Your task to perform on an android device: find snoozed emails in the gmail app Image 0: 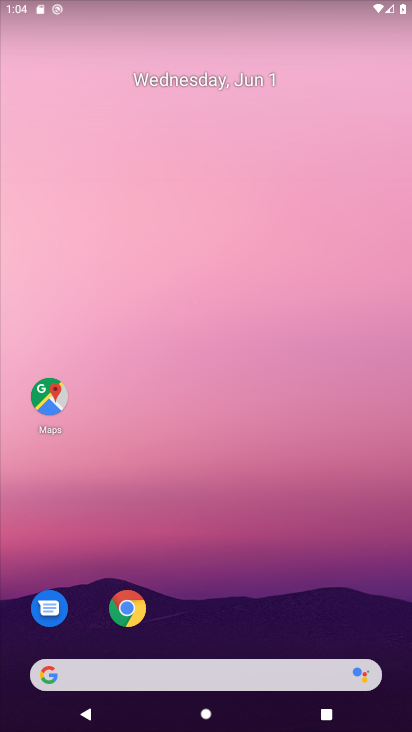
Step 0: drag from (212, 308) to (225, 87)
Your task to perform on an android device: find snoozed emails in the gmail app Image 1: 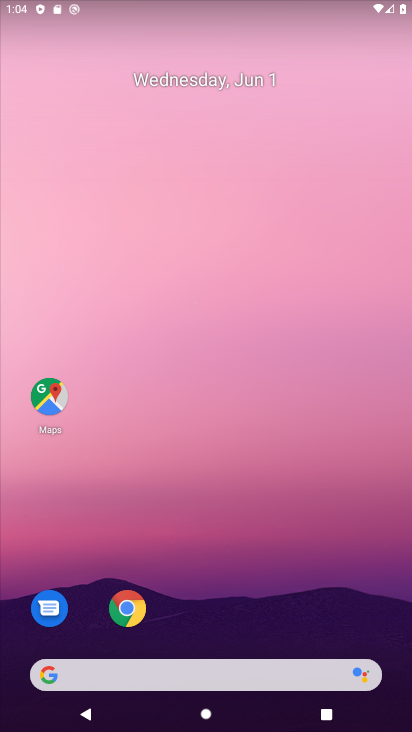
Step 1: drag from (228, 628) to (191, 87)
Your task to perform on an android device: find snoozed emails in the gmail app Image 2: 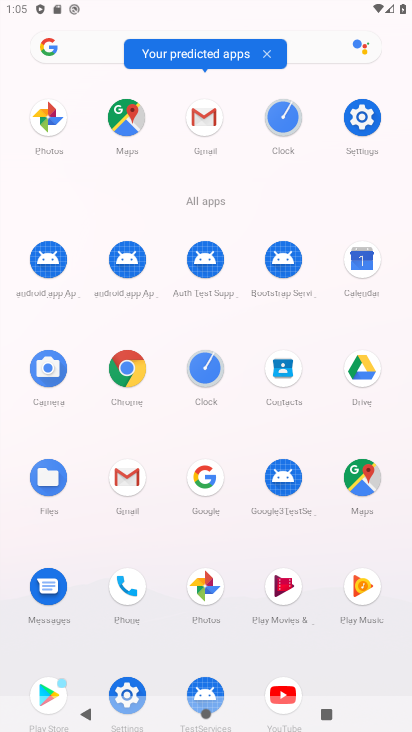
Step 2: click (129, 500)
Your task to perform on an android device: find snoozed emails in the gmail app Image 3: 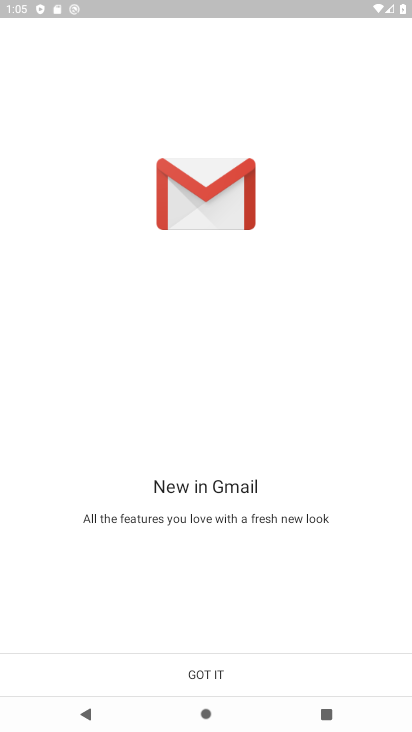
Step 3: click (218, 658)
Your task to perform on an android device: find snoozed emails in the gmail app Image 4: 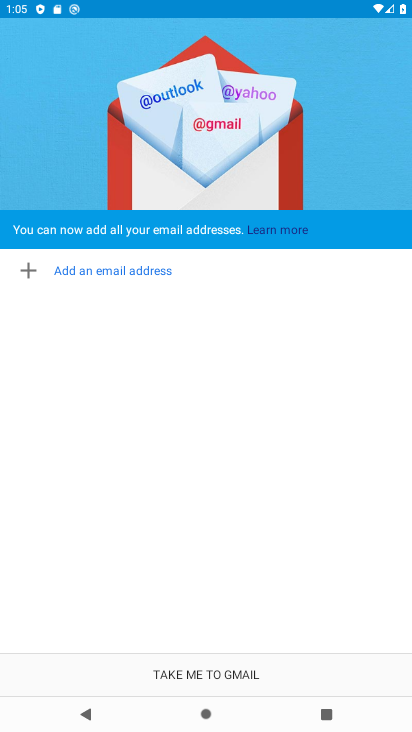
Step 4: click (211, 677)
Your task to perform on an android device: find snoozed emails in the gmail app Image 5: 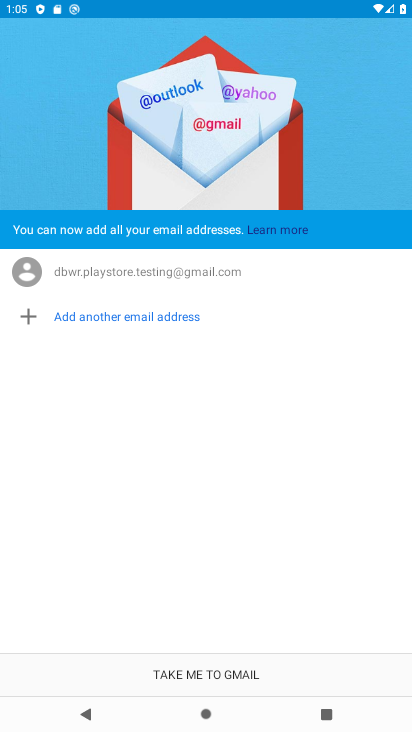
Step 5: click (211, 677)
Your task to perform on an android device: find snoozed emails in the gmail app Image 6: 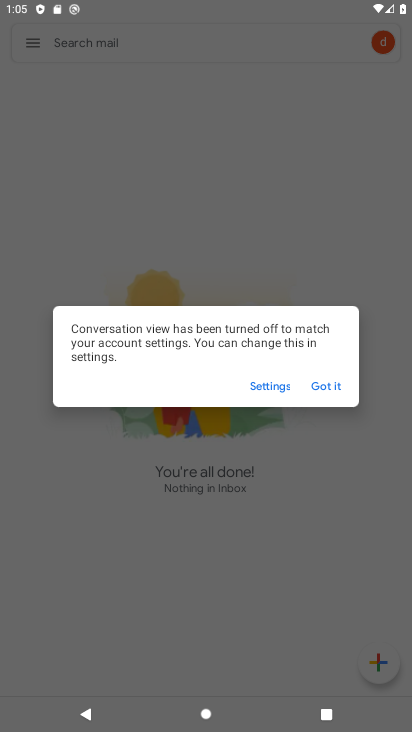
Step 6: click (330, 385)
Your task to perform on an android device: find snoozed emails in the gmail app Image 7: 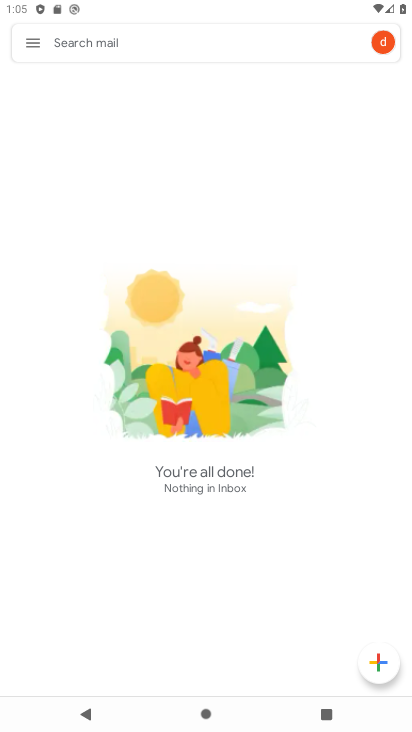
Step 7: press home button
Your task to perform on an android device: find snoozed emails in the gmail app Image 8: 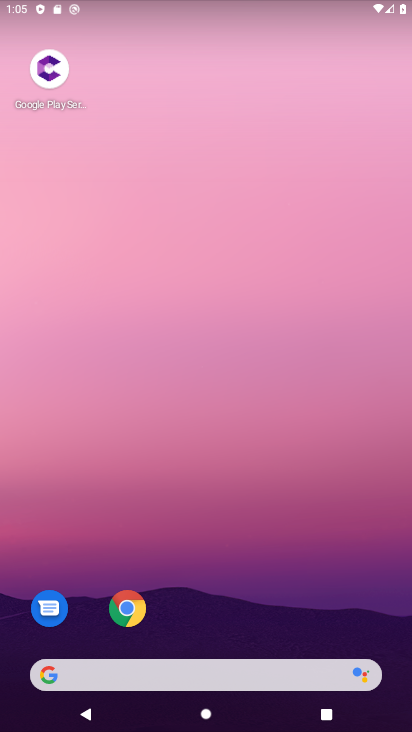
Step 8: drag from (210, 614) to (201, 244)
Your task to perform on an android device: find snoozed emails in the gmail app Image 9: 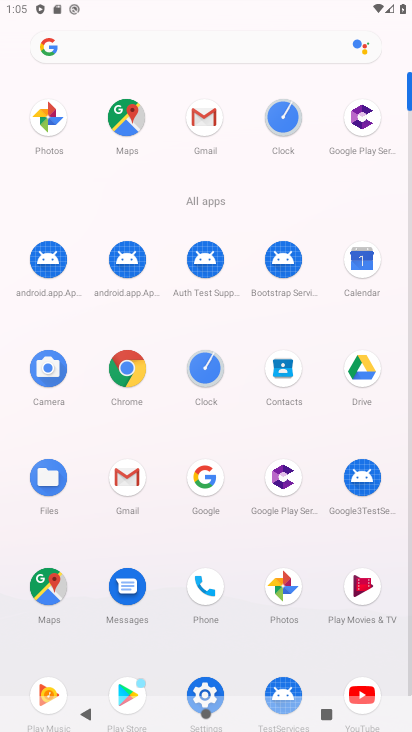
Step 9: click (206, 127)
Your task to perform on an android device: find snoozed emails in the gmail app Image 10: 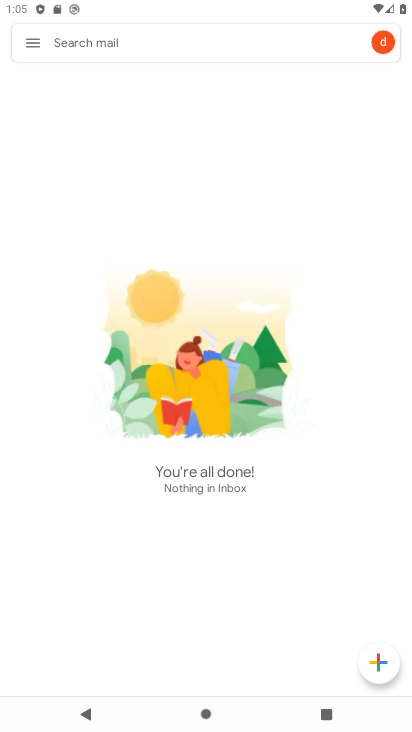
Step 10: click (37, 45)
Your task to perform on an android device: find snoozed emails in the gmail app Image 11: 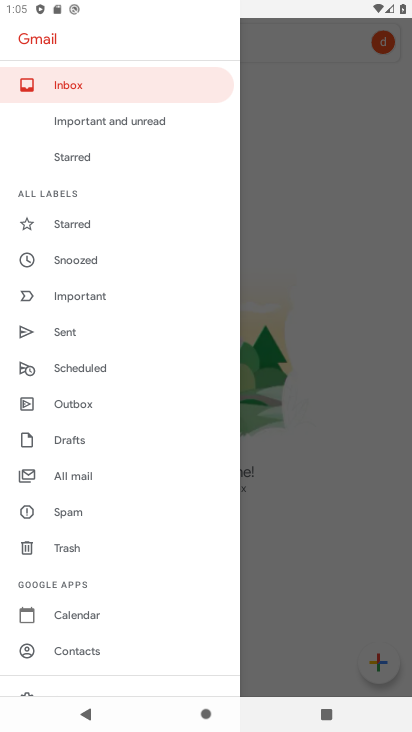
Step 11: click (77, 267)
Your task to perform on an android device: find snoozed emails in the gmail app Image 12: 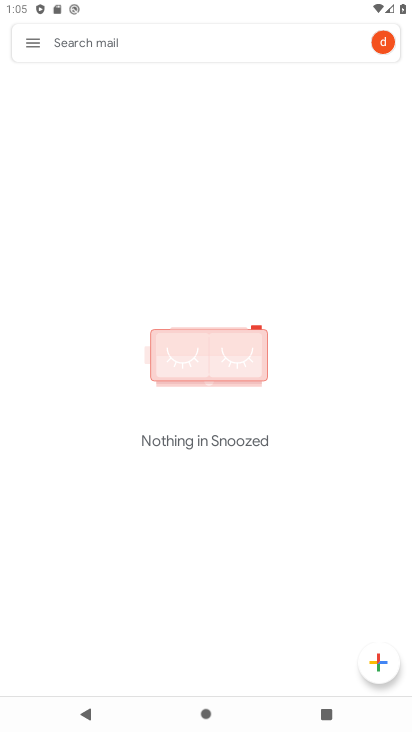
Step 12: task complete